Your task to perform on an android device: Turn off the flashlight Image 0: 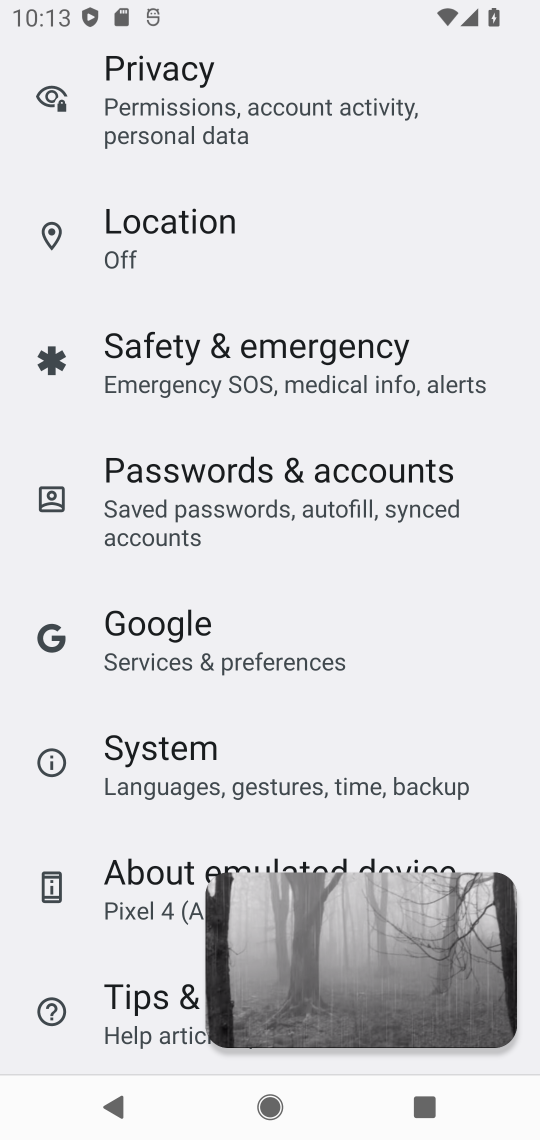
Step 0: press home button
Your task to perform on an android device: Turn off the flashlight Image 1: 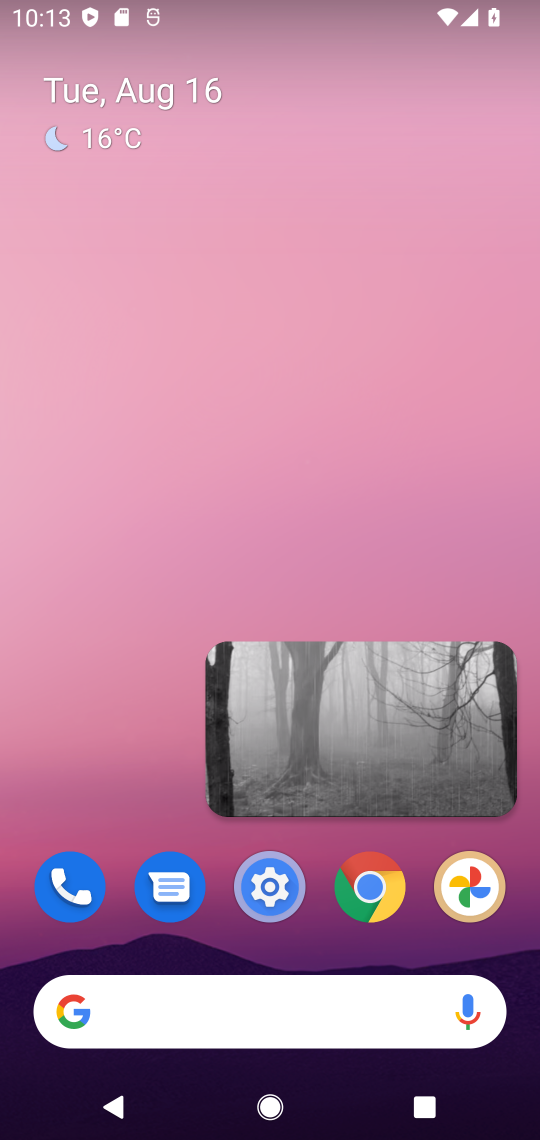
Step 1: drag from (258, 19) to (287, 513)
Your task to perform on an android device: Turn off the flashlight Image 2: 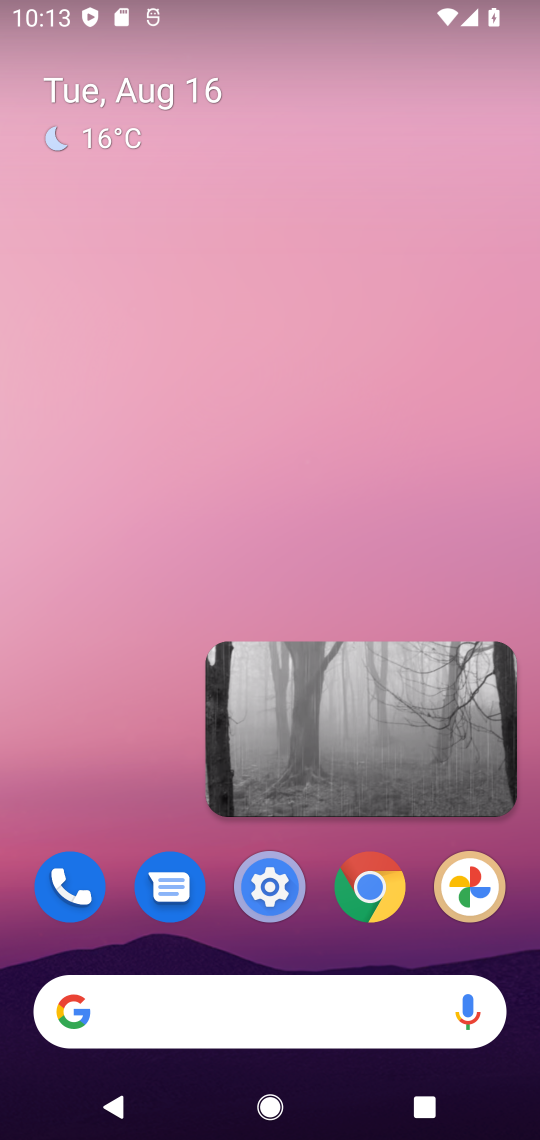
Step 2: drag from (273, 1) to (321, 618)
Your task to perform on an android device: Turn off the flashlight Image 3: 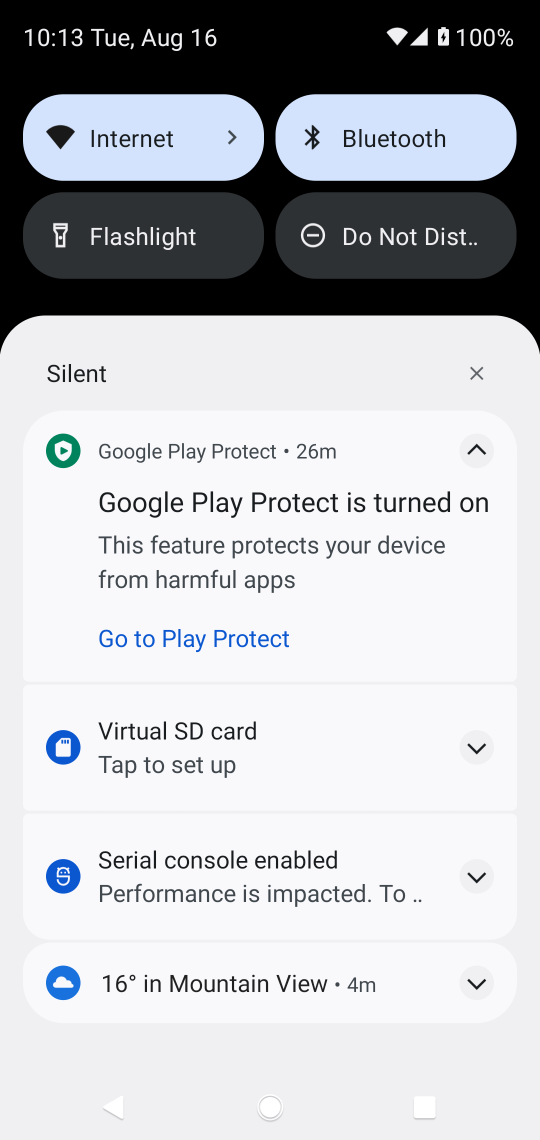
Step 3: drag from (278, 63) to (290, 499)
Your task to perform on an android device: Turn off the flashlight Image 4: 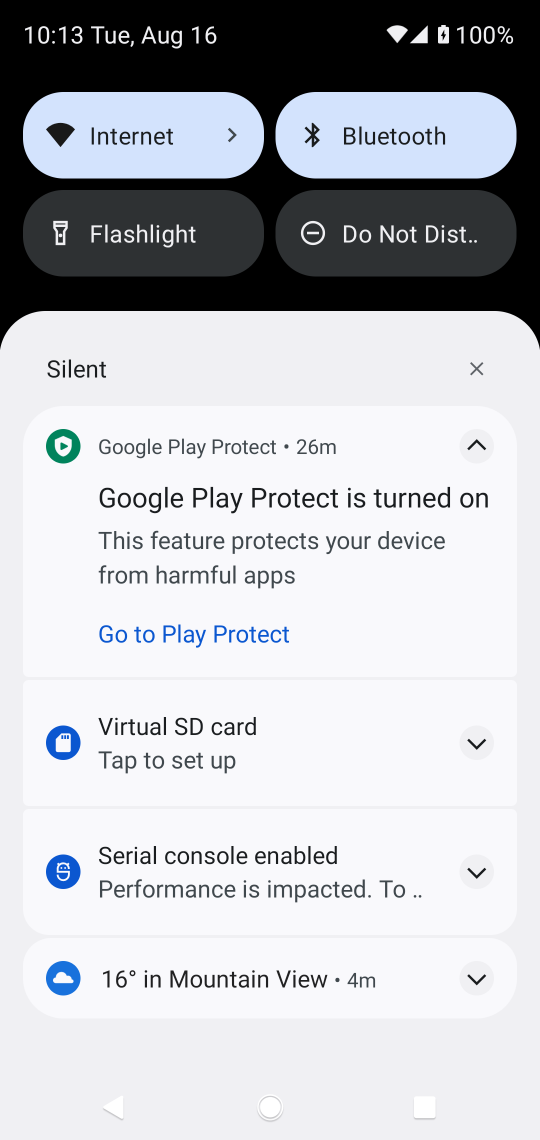
Step 4: click (152, 271)
Your task to perform on an android device: Turn off the flashlight Image 5: 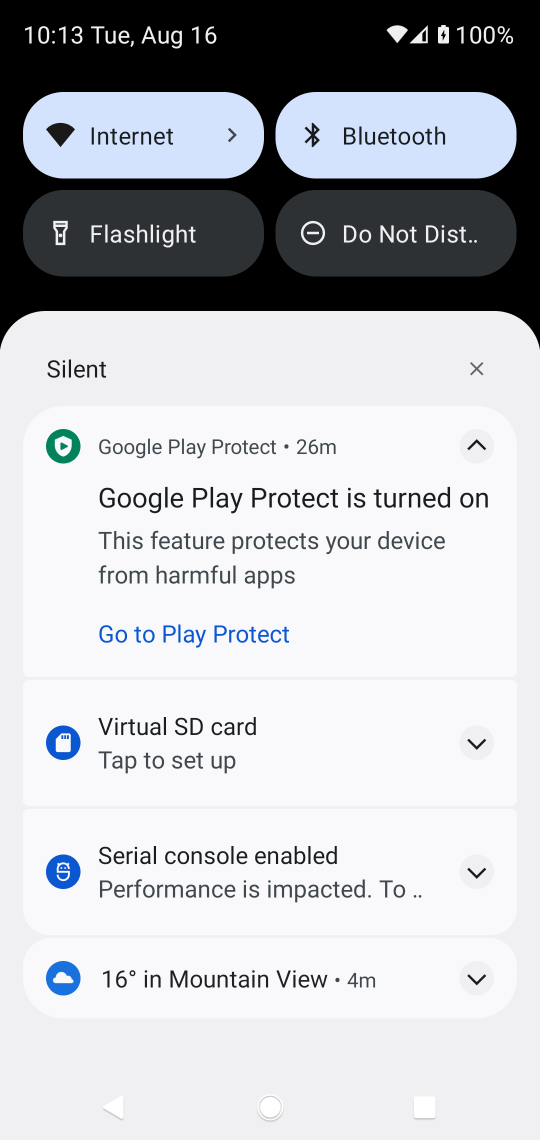
Step 5: task complete